Your task to perform on an android device: open chrome and create a bookmark for the current page Image 0: 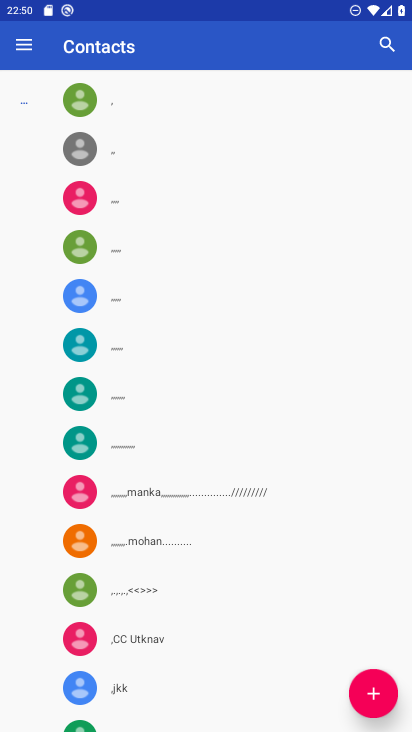
Step 0: press home button
Your task to perform on an android device: open chrome and create a bookmark for the current page Image 1: 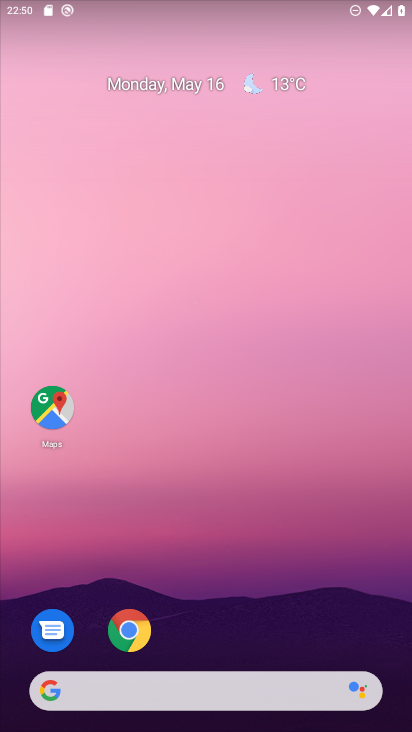
Step 1: click (139, 635)
Your task to perform on an android device: open chrome and create a bookmark for the current page Image 2: 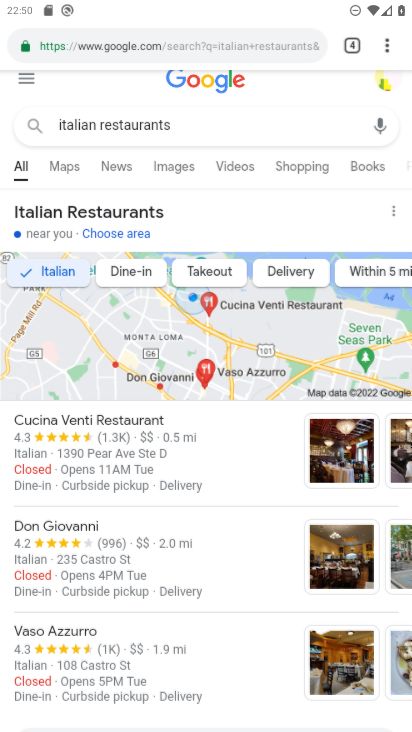
Step 2: click (388, 51)
Your task to perform on an android device: open chrome and create a bookmark for the current page Image 3: 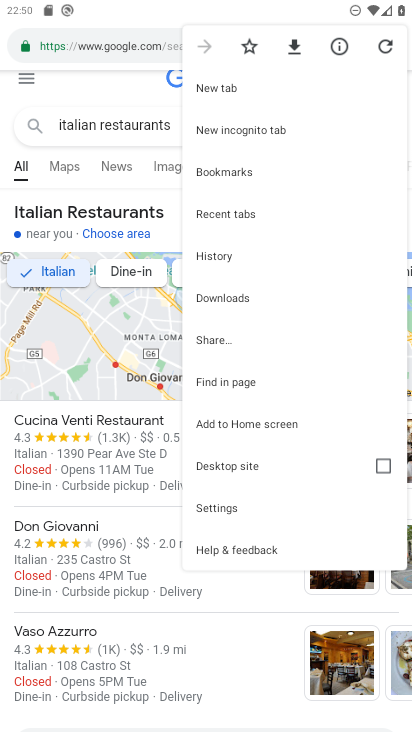
Step 3: click (253, 44)
Your task to perform on an android device: open chrome and create a bookmark for the current page Image 4: 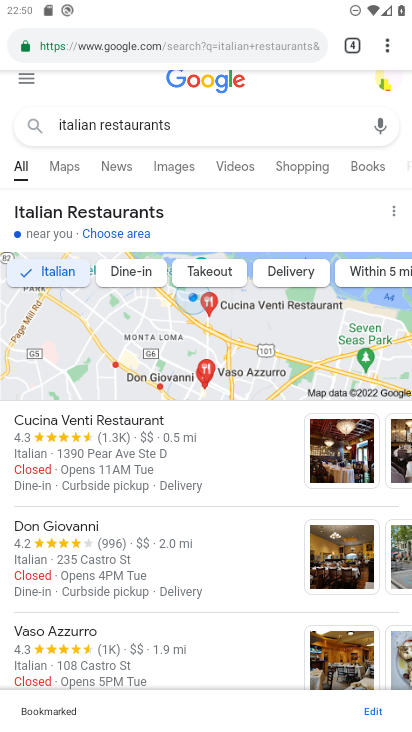
Step 4: task complete